Your task to perform on an android device: set the stopwatch Image 0: 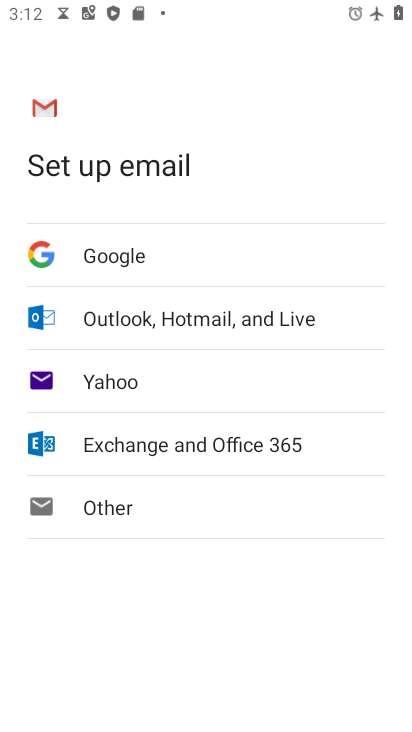
Step 0: press back button
Your task to perform on an android device: set the stopwatch Image 1: 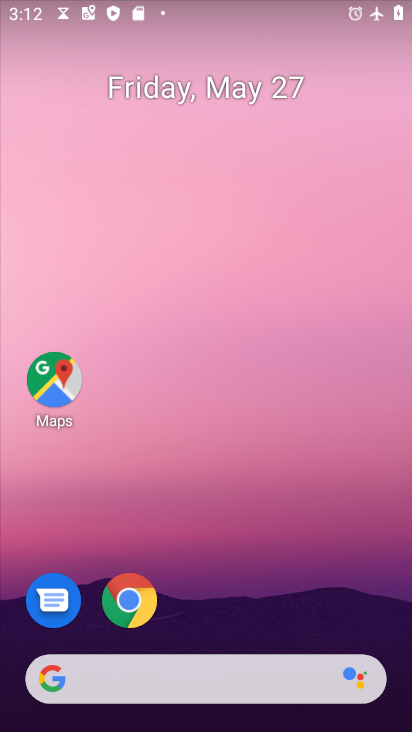
Step 1: drag from (304, 571) to (245, 49)
Your task to perform on an android device: set the stopwatch Image 2: 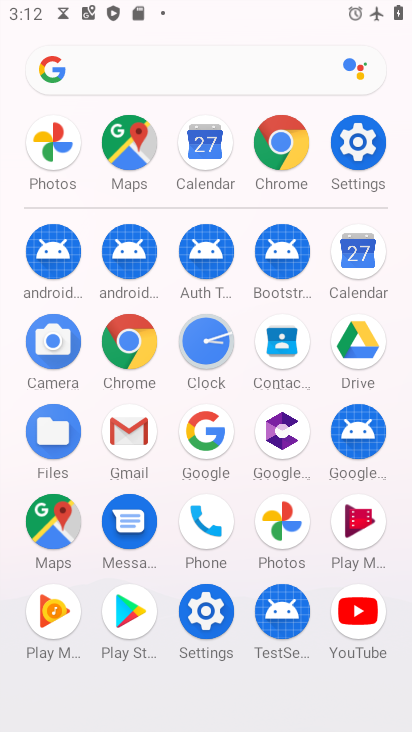
Step 2: drag from (7, 601) to (17, 287)
Your task to perform on an android device: set the stopwatch Image 3: 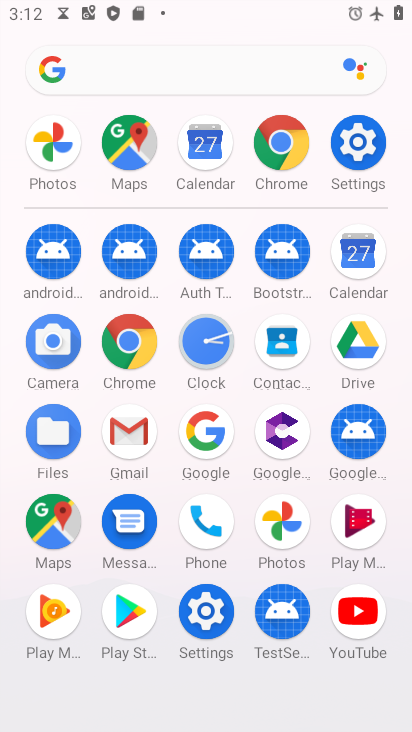
Step 3: click (205, 340)
Your task to perform on an android device: set the stopwatch Image 4: 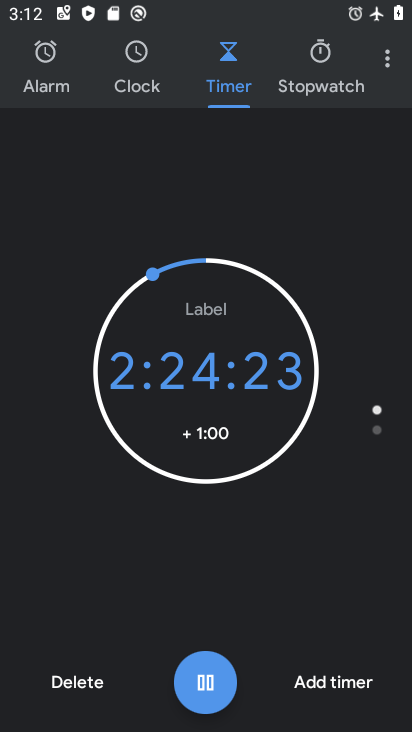
Step 4: click (328, 59)
Your task to perform on an android device: set the stopwatch Image 5: 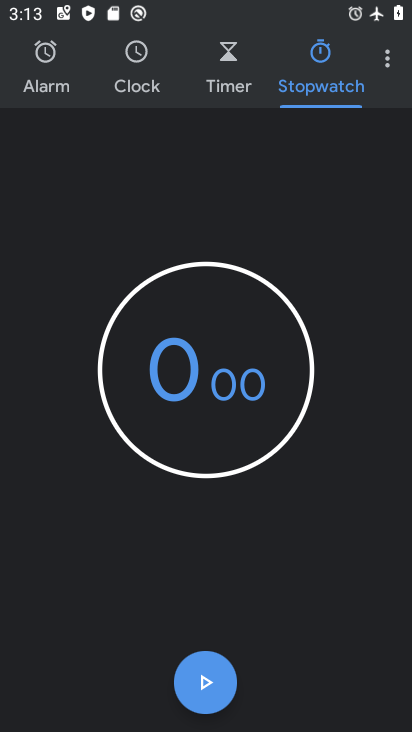
Step 5: click (193, 689)
Your task to perform on an android device: set the stopwatch Image 6: 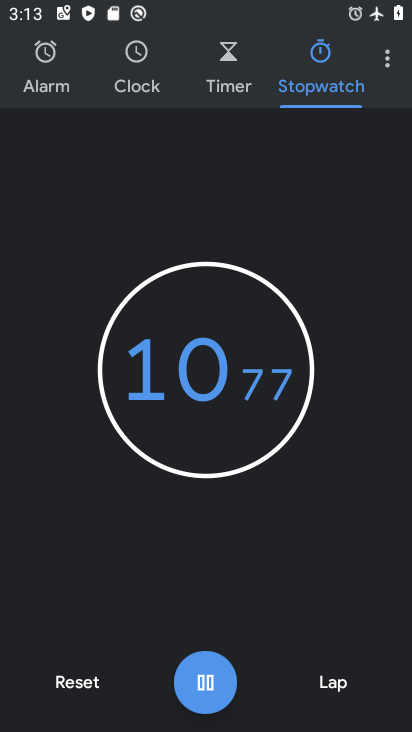
Step 6: task complete